Your task to perform on an android device: open wifi settings Image 0: 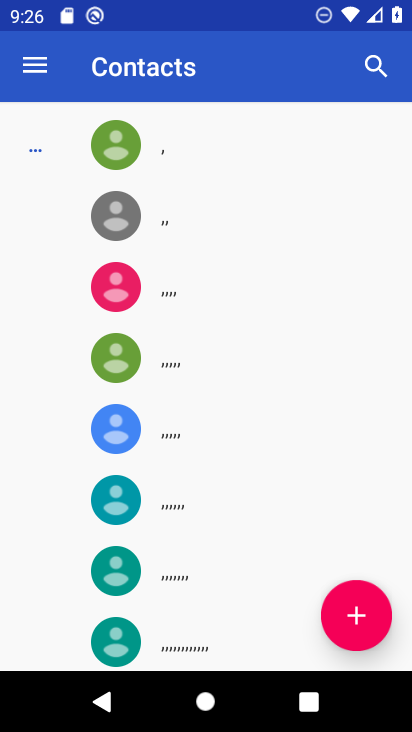
Step 0: press home button
Your task to perform on an android device: open wifi settings Image 1: 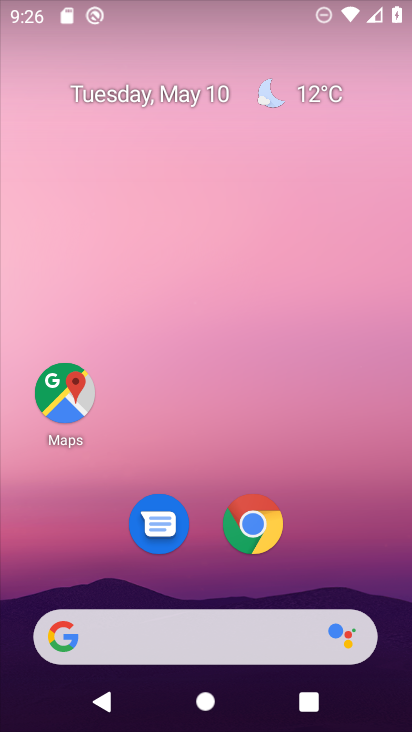
Step 1: drag from (275, 441) to (250, 29)
Your task to perform on an android device: open wifi settings Image 2: 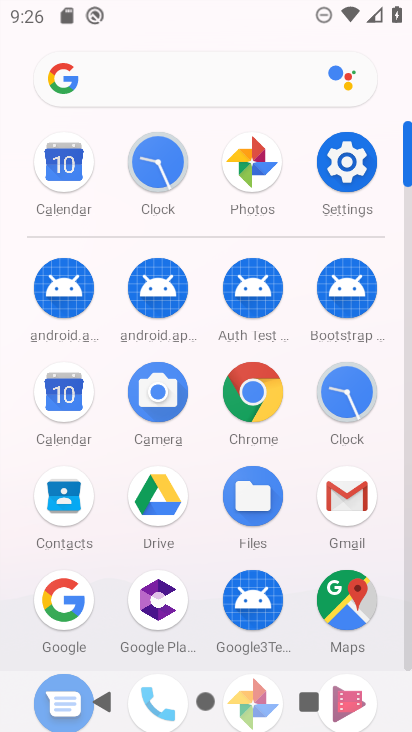
Step 2: click (341, 156)
Your task to perform on an android device: open wifi settings Image 3: 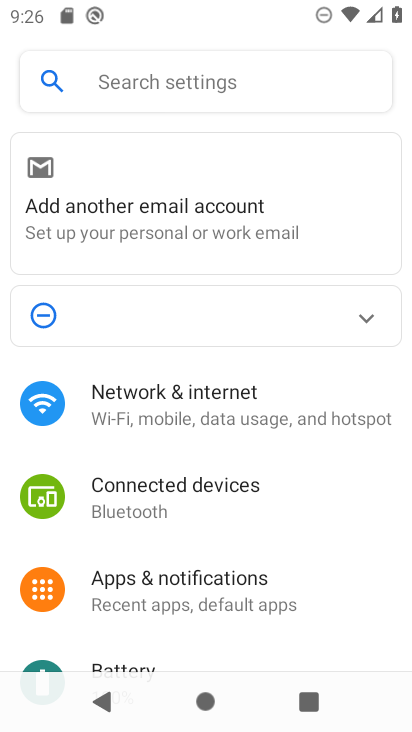
Step 3: click (171, 405)
Your task to perform on an android device: open wifi settings Image 4: 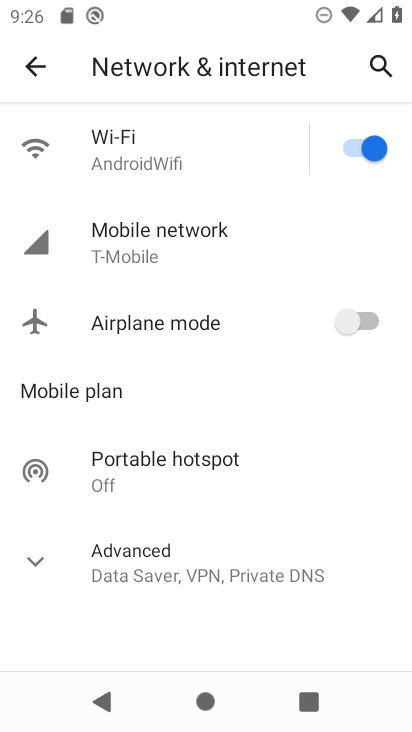
Step 4: click (213, 152)
Your task to perform on an android device: open wifi settings Image 5: 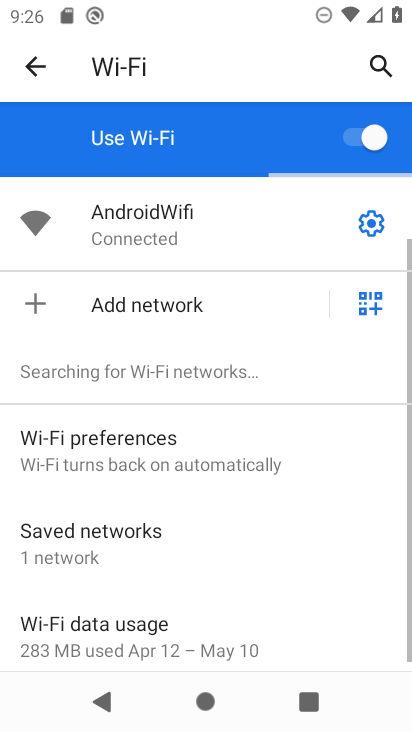
Step 5: task complete